Your task to perform on an android device: What's the weather going to be tomorrow? Image 0: 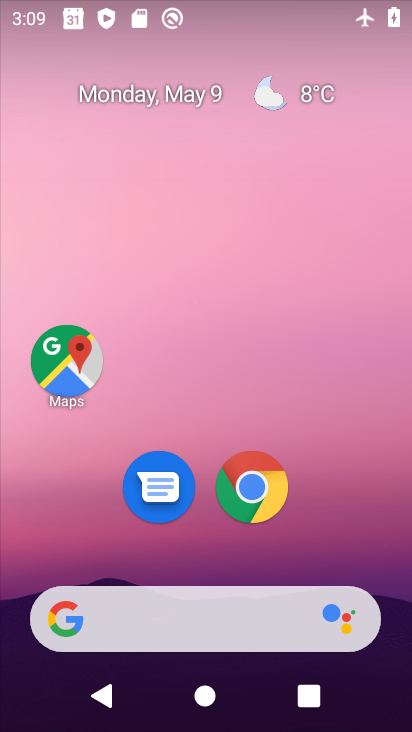
Step 0: drag from (215, 558) to (231, 38)
Your task to perform on an android device: What's the weather going to be tomorrow? Image 1: 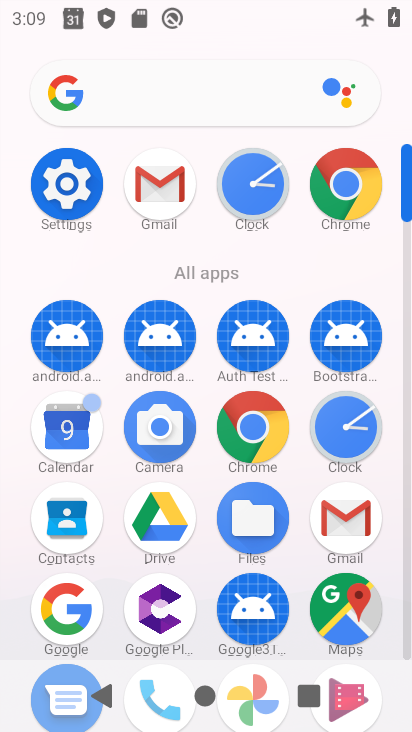
Step 1: press home button
Your task to perform on an android device: What's the weather going to be tomorrow? Image 2: 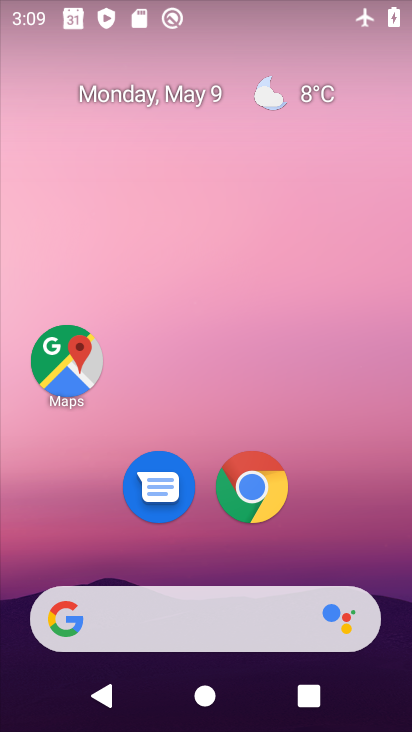
Step 2: click (305, 89)
Your task to perform on an android device: What's the weather going to be tomorrow? Image 3: 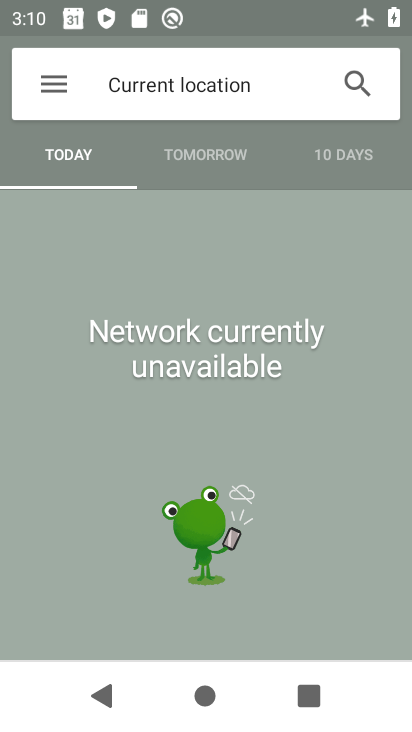
Step 3: click (196, 161)
Your task to perform on an android device: What's the weather going to be tomorrow? Image 4: 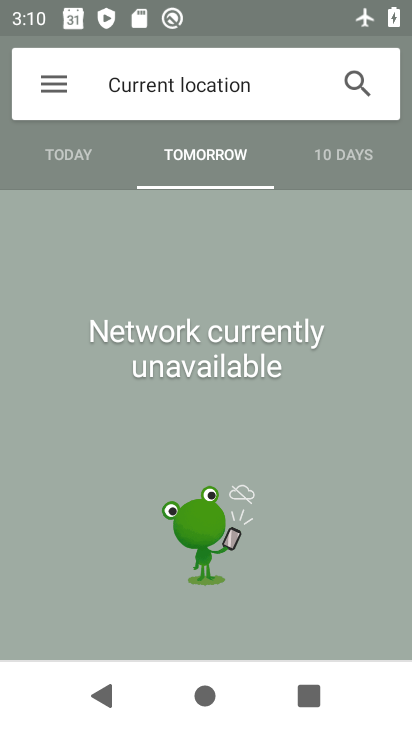
Step 4: task complete